Your task to perform on an android device: Search for sushi restaurants on Maps Image 0: 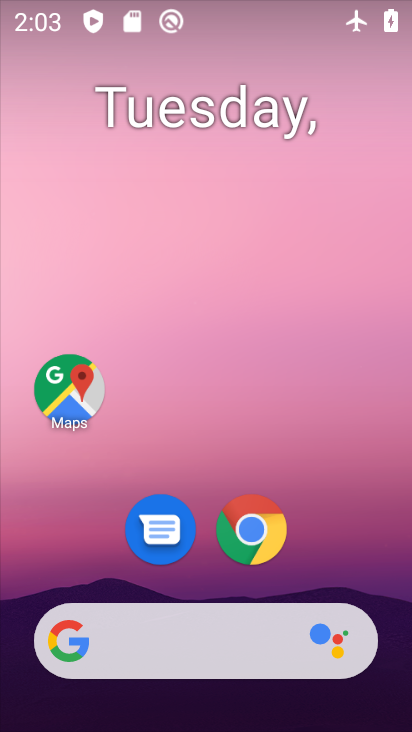
Step 0: click (77, 394)
Your task to perform on an android device: Search for sushi restaurants on Maps Image 1: 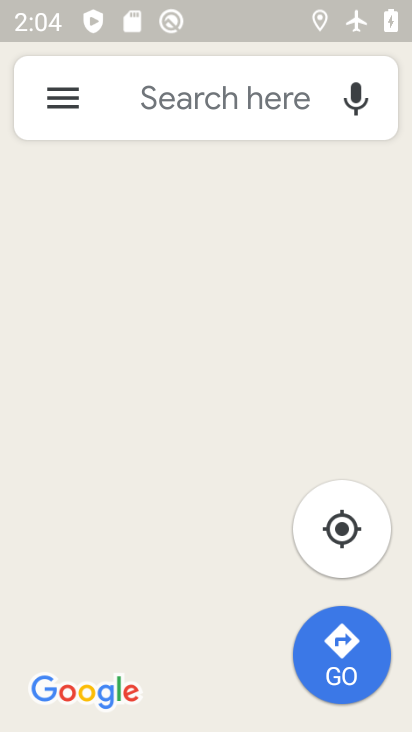
Step 1: click (166, 109)
Your task to perform on an android device: Search for sushi restaurants on Maps Image 2: 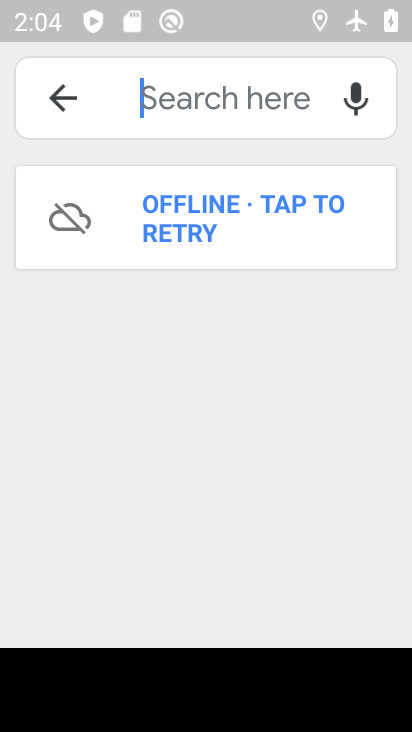
Step 2: type "sushi restaurants"
Your task to perform on an android device: Search for sushi restaurants on Maps Image 3: 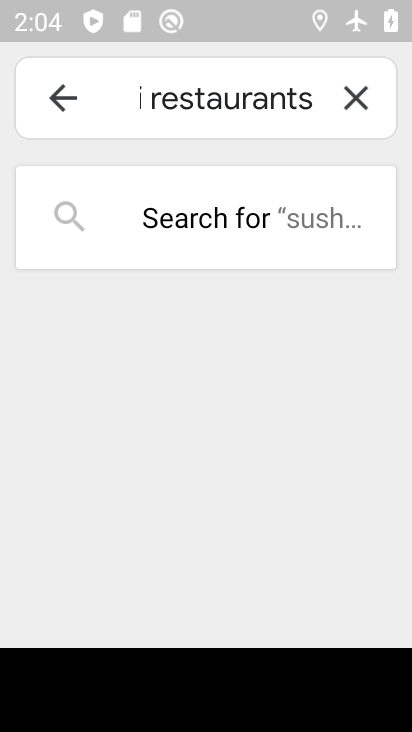
Step 3: click (186, 220)
Your task to perform on an android device: Search for sushi restaurants on Maps Image 4: 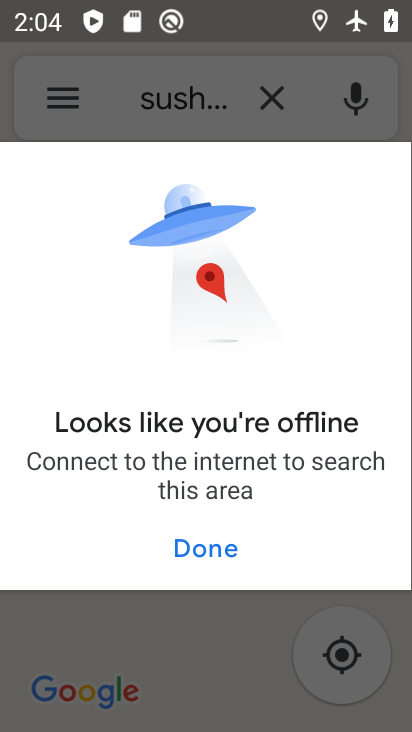
Step 4: task complete